Your task to perform on an android device: Open CNN.com Image 0: 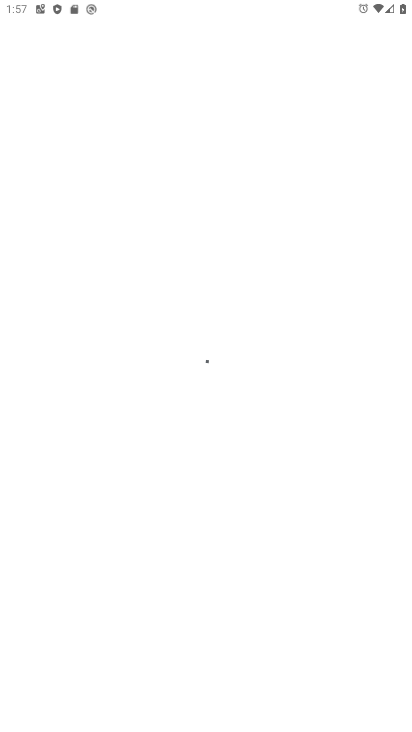
Step 0: press home button
Your task to perform on an android device: Open CNN.com Image 1: 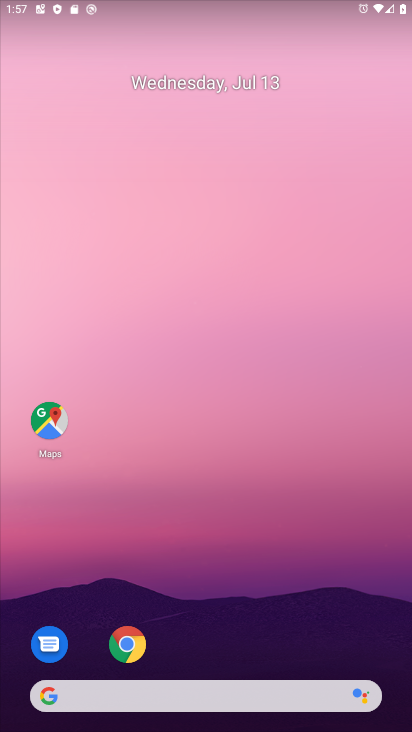
Step 1: click (145, 634)
Your task to perform on an android device: Open CNN.com Image 2: 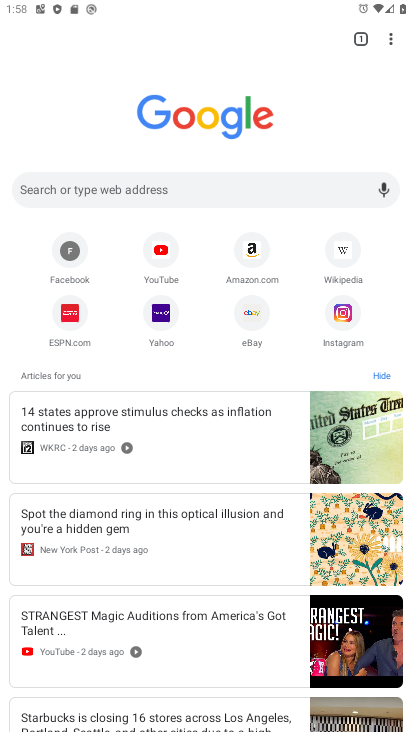
Step 2: click (154, 194)
Your task to perform on an android device: Open CNN.com Image 3: 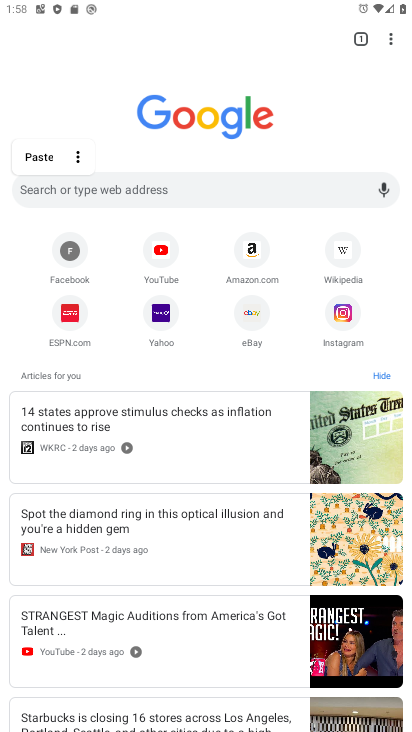
Step 3: type "CNN.com"
Your task to perform on an android device: Open CNN.com Image 4: 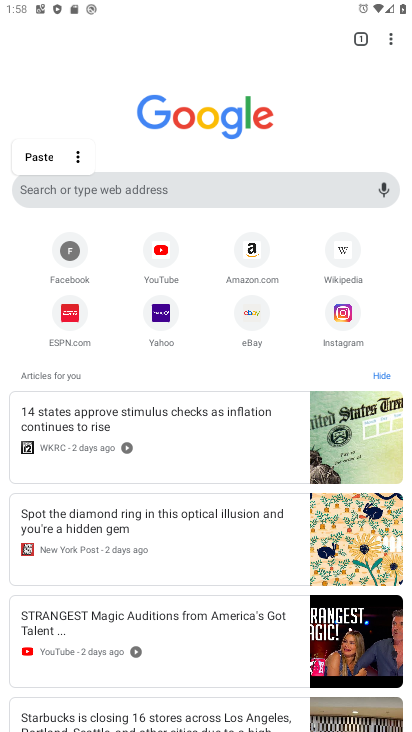
Step 4: type ""
Your task to perform on an android device: Open CNN.com Image 5: 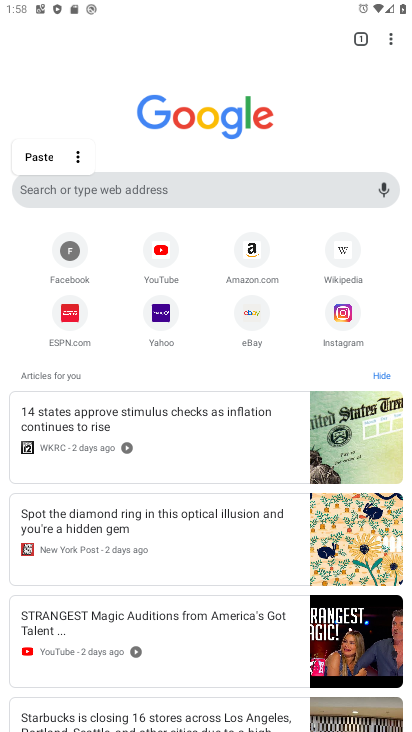
Step 5: click (80, 184)
Your task to perform on an android device: Open CNN.com Image 6: 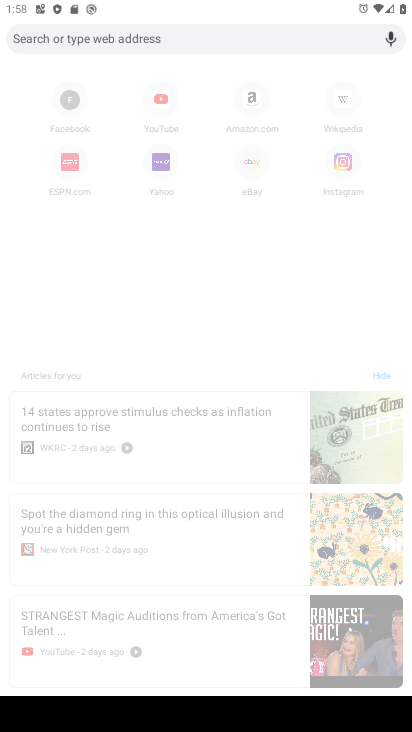
Step 6: type "CNN.com"
Your task to perform on an android device: Open CNN.com Image 7: 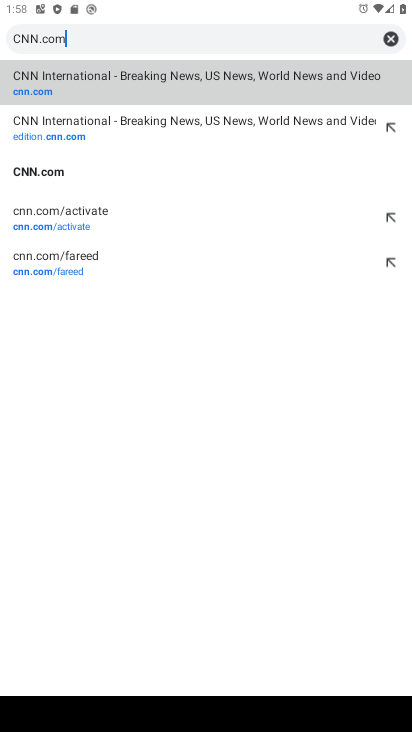
Step 7: type ""
Your task to perform on an android device: Open CNN.com Image 8: 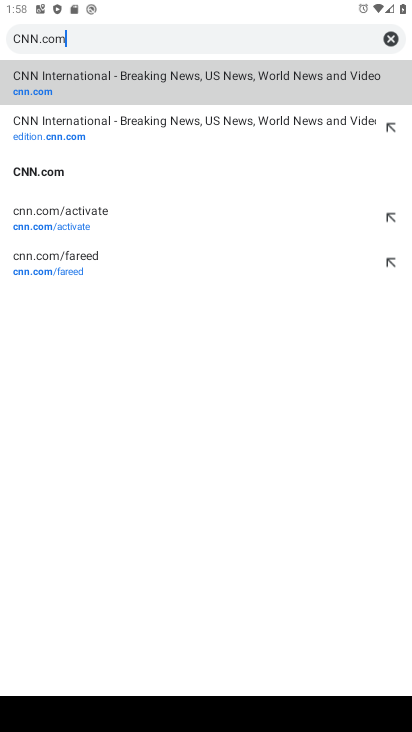
Step 8: click (59, 81)
Your task to perform on an android device: Open CNN.com Image 9: 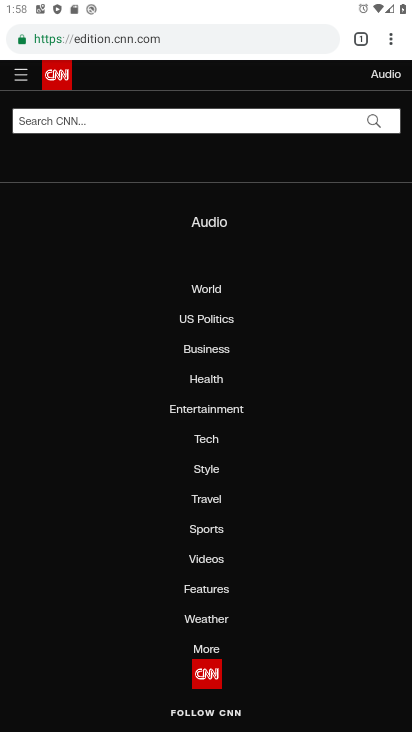
Step 9: task complete